Your task to perform on an android device: toggle notification dots Image 0: 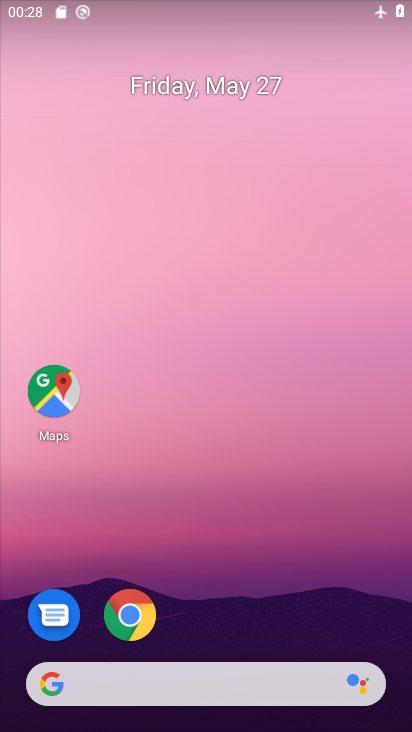
Step 0: drag from (352, 617) to (361, 331)
Your task to perform on an android device: toggle notification dots Image 1: 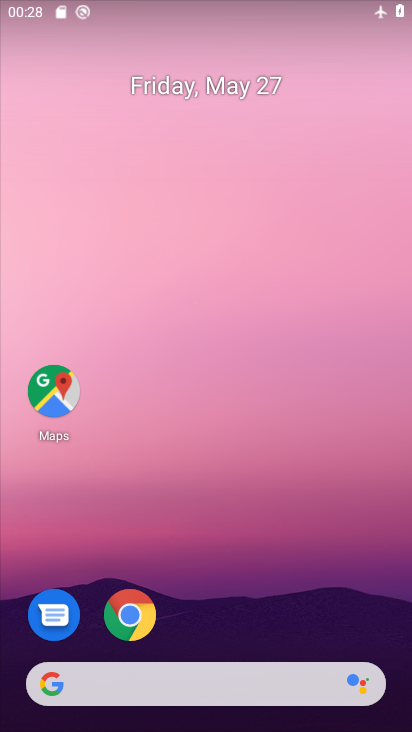
Step 1: drag from (327, 615) to (321, 200)
Your task to perform on an android device: toggle notification dots Image 2: 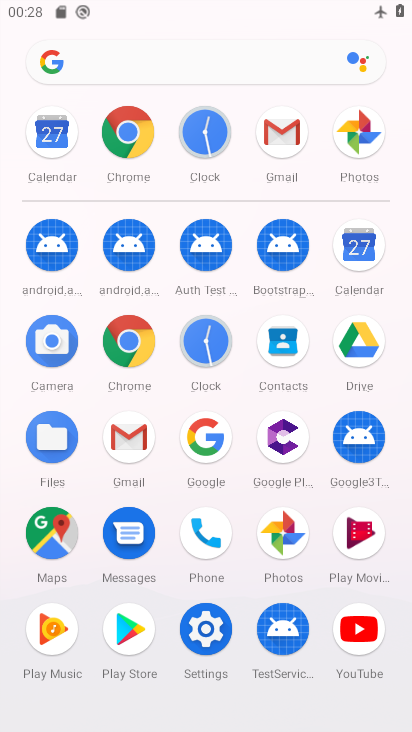
Step 2: click (209, 625)
Your task to perform on an android device: toggle notification dots Image 3: 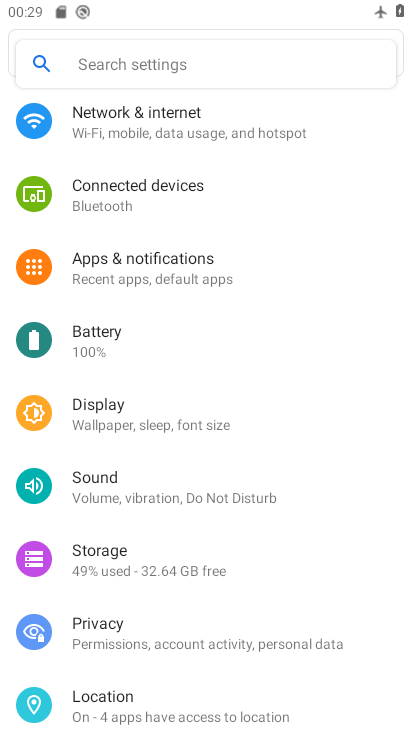
Step 3: click (196, 272)
Your task to perform on an android device: toggle notification dots Image 4: 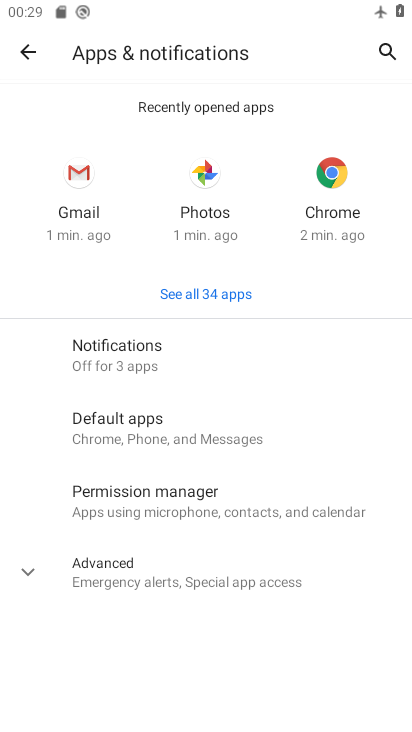
Step 4: click (178, 580)
Your task to perform on an android device: toggle notification dots Image 5: 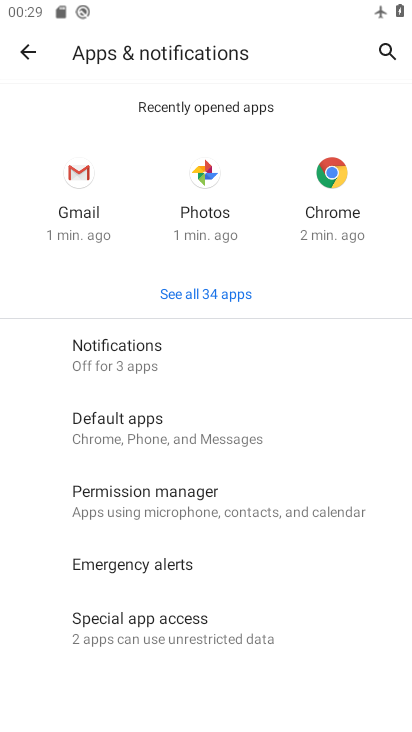
Step 5: click (150, 358)
Your task to perform on an android device: toggle notification dots Image 6: 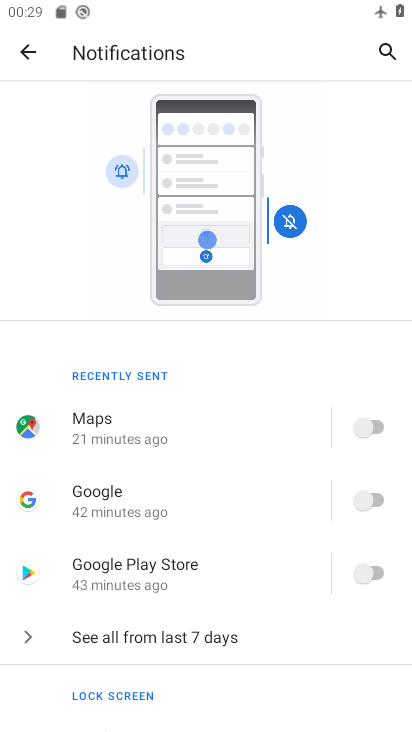
Step 6: drag from (231, 500) to (243, 389)
Your task to perform on an android device: toggle notification dots Image 7: 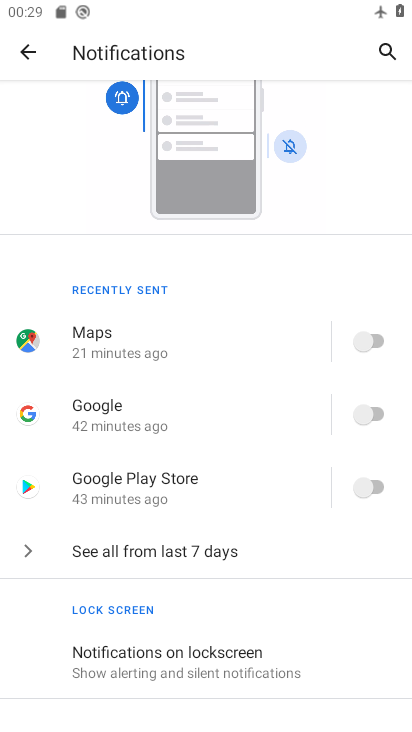
Step 7: drag from (269, 564) to (274, 432)
Your task to perform on an android device: toggle notification dots Image 8: 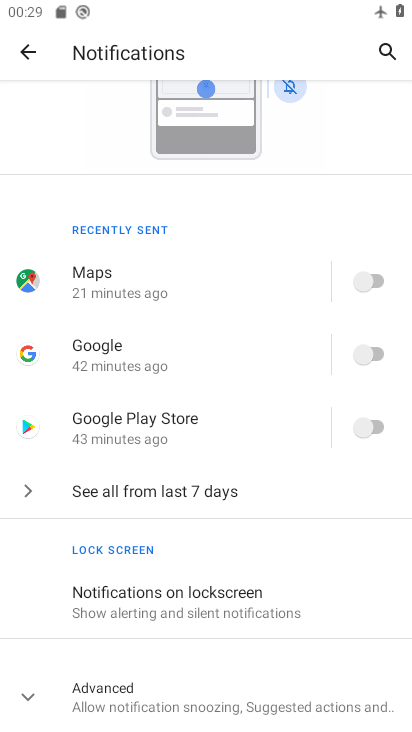
Step 8: click (280, 691)
Your task to perform on an android device: toggle notification dots Image 9: 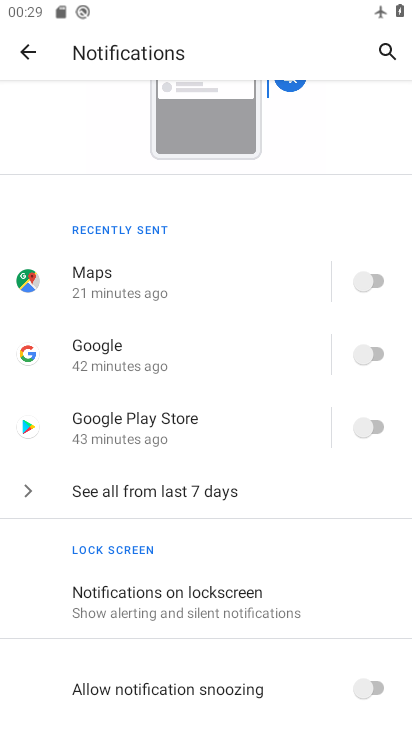
Step 9: drag from (281, 692) to (303, 574)
Your task to perform on an android device: toggle notification dots Image 10: 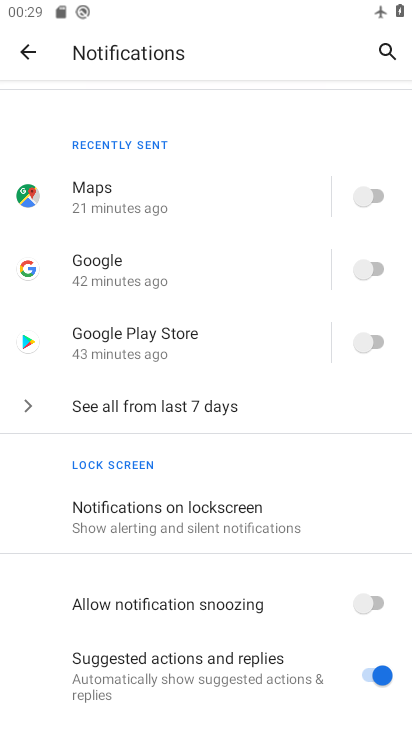
Step 10: drag from (302, 711) to (312, 552)
Your task to perform on an android device: toggle notification dots Image 11: 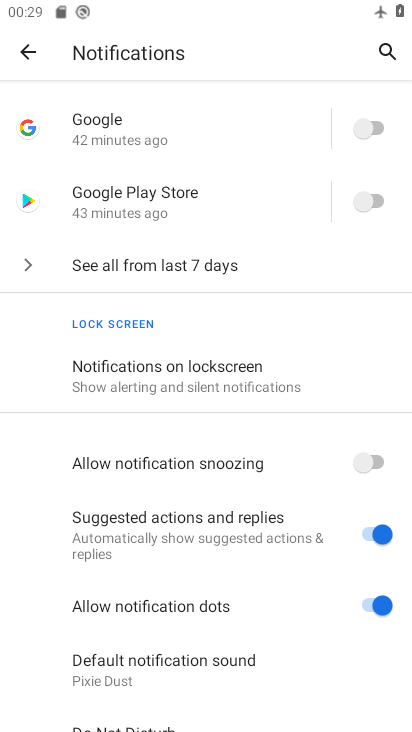
Step 11: click (384, 607)
Your task to perform on an android device: toggle notification dots Image 12: 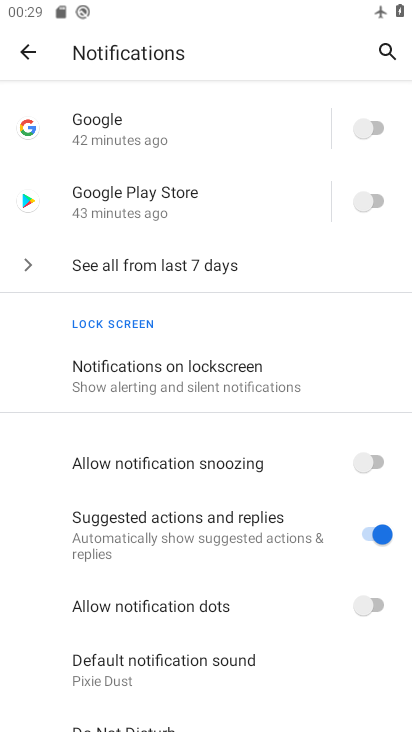
Step 12: task complete